Your task to perform on an android device: Do I have any events today? Image 0: 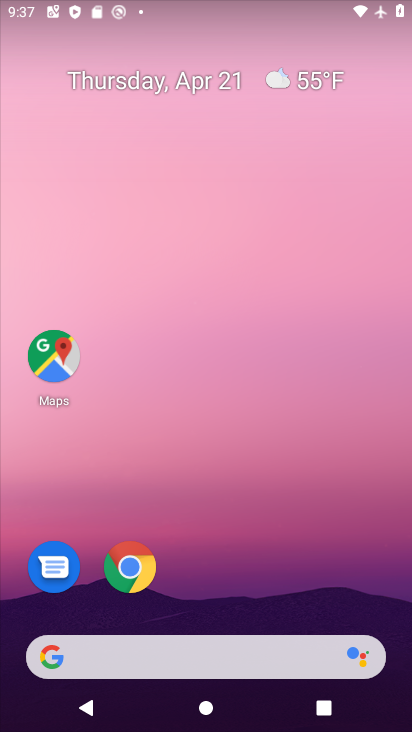
Step 0: drag from (374, 614) to (263, 180)
Your task to perform on an android device: Do I have any events today? Image 1: 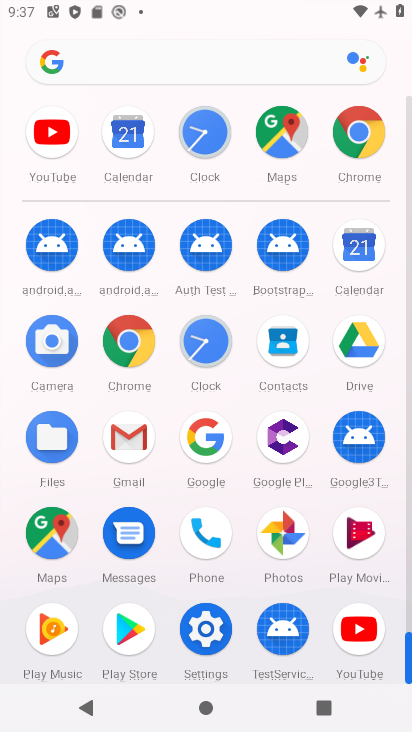
Step 1: click (358, 254)
Your task to perform on an android device: Do I have any events today? Image 2: 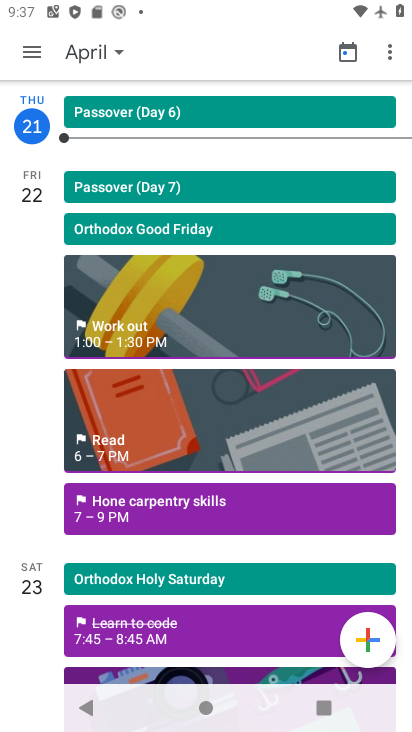
Step 2: click (30, 49)
Your task to perform on an android device: Do I have any events today? Image 3: 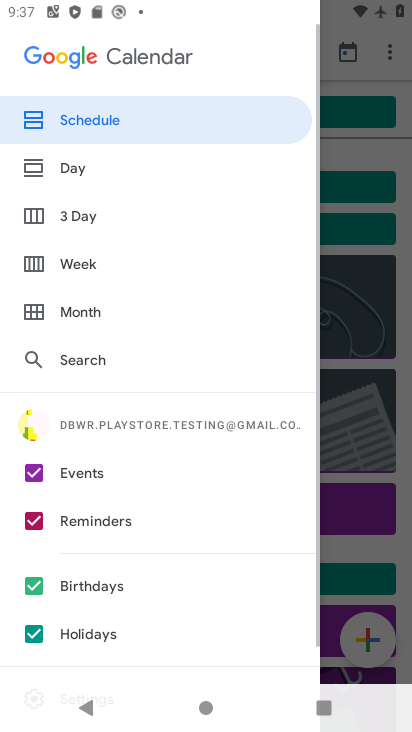
Step 3: click (60, 161)
Your task to perform on an android device: Do I have any events today? Image 4: 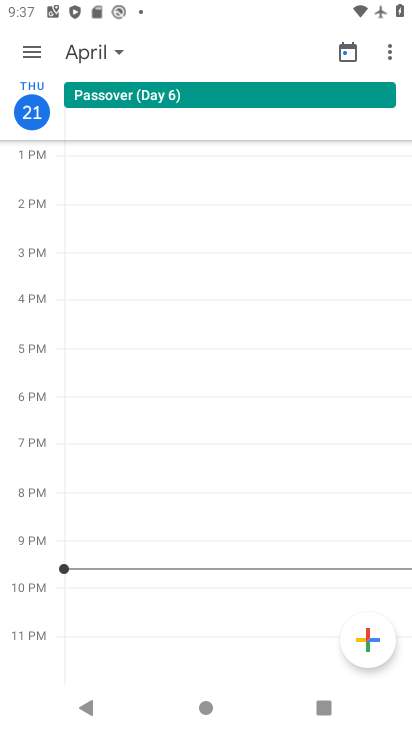
Step 4: task complete